Your task to perform on an android device: set default search engine in the chrome app Image 0: 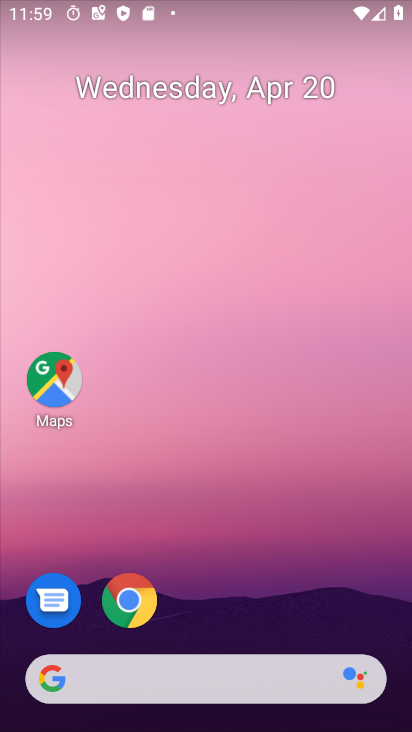
Step 0: drag from (359, 630) to (344, 131)
Your task to perform on an android device: set default search engine in the chrome app Image 1: 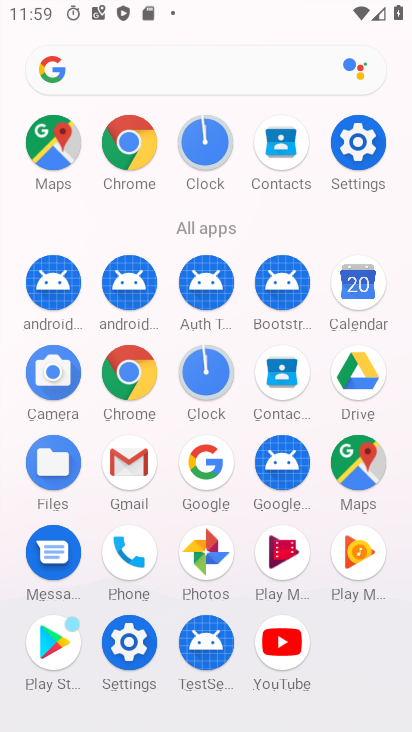
Step 1: click (124, 390)
Your task to perform on an android device: set default search engine in the chrome app Image 2: 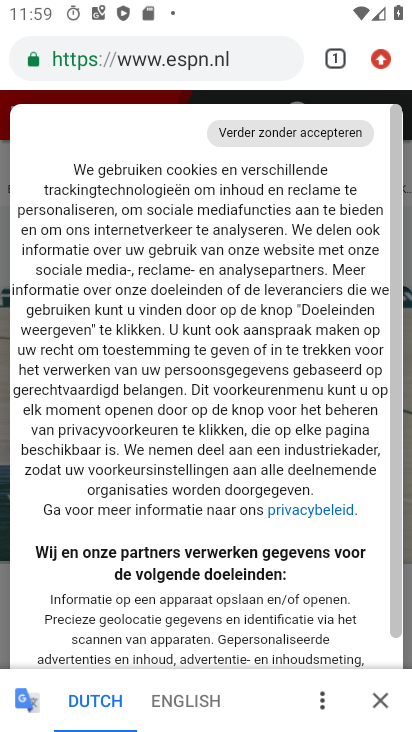
Step 2: click (378, 62)
Your task to perform on an android device: set default search engine in the chrome app Image 3: 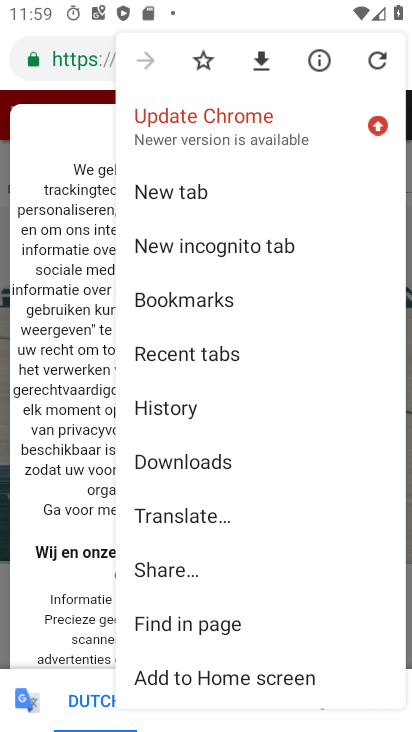
Step 3: drag from (306, 611) to (305, 305)
Your task to perform on an android device: set default search engine in the chrome app Image 4: 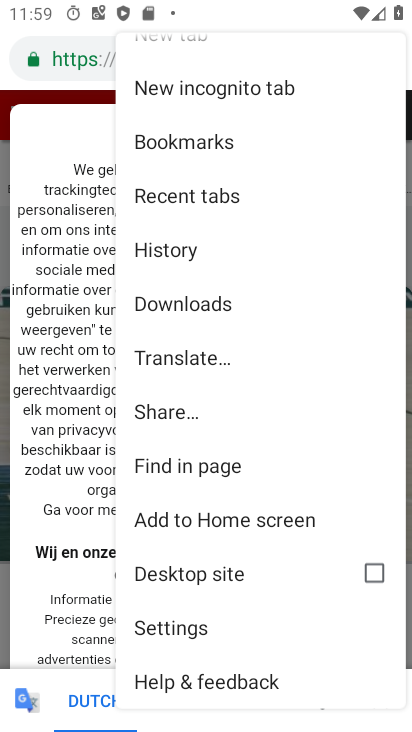
Step 4: click (199, 625)
Your task to perform on an android device: set default search engine in the chrome app Image 5: 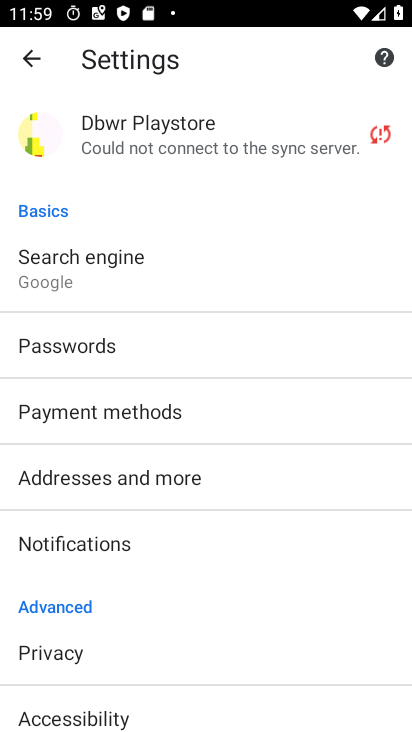
Step 5: drag from (219, 647) to (232, 300)
Your task to perform on an android device: set default search engine in the chrome app Image 6: 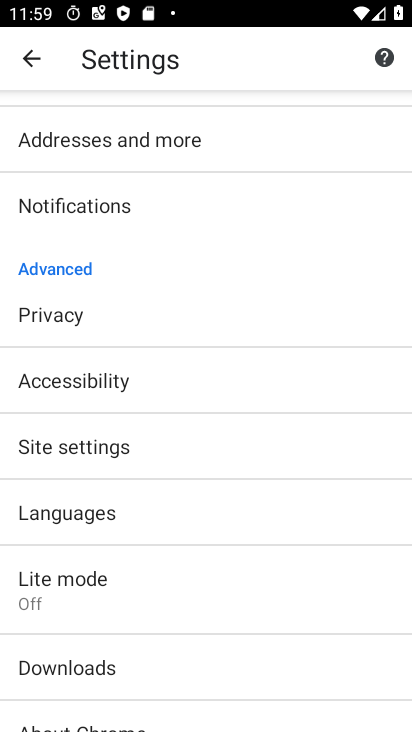
Step 6: drag from (216, 208) to (210, 533)
Your task to perform on an android device: set default search engine in the chrome app Image 7: 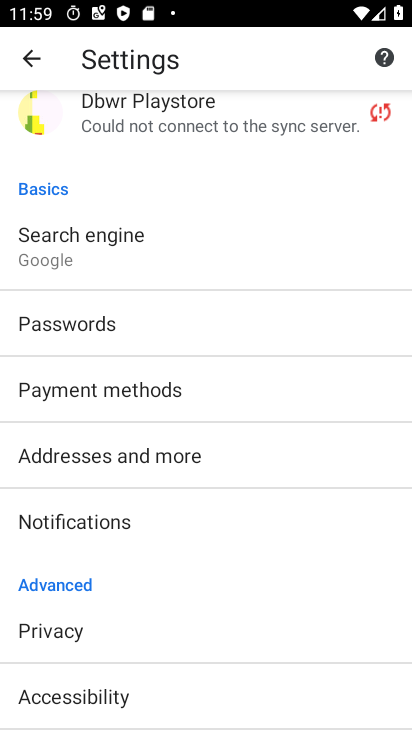
Step 7: click (87, 263)
Your task to perform on an android device: set default search engine in the chrome app Image 8: 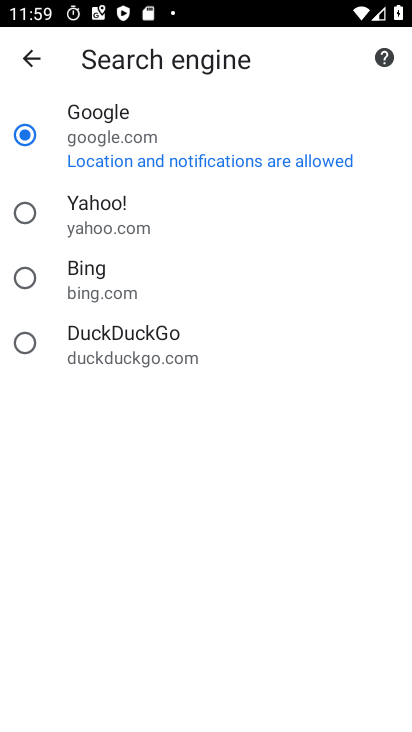
Step 8: click (112, 206)
Your task to perform on an android device: set default search engine in the chrome app Image 9: 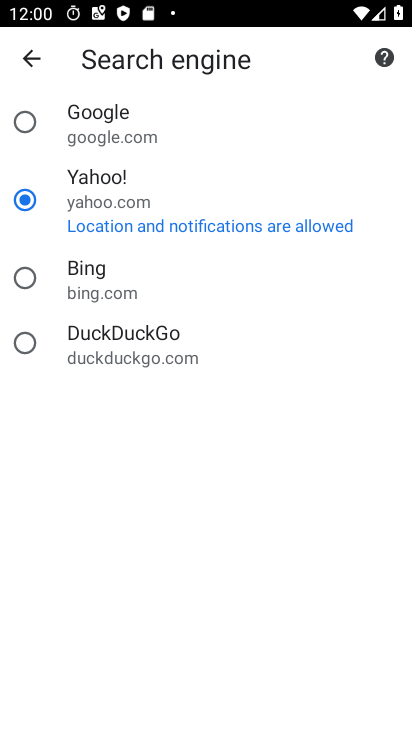
Step 9: task complete